Your task to perform on an android device: turn on location history Image 0: 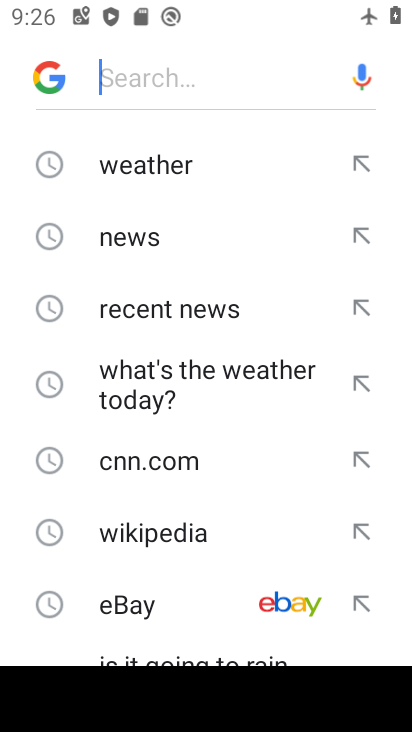
Step 0: press home button
Your task to perform on an android device: turn on location history Image 1: 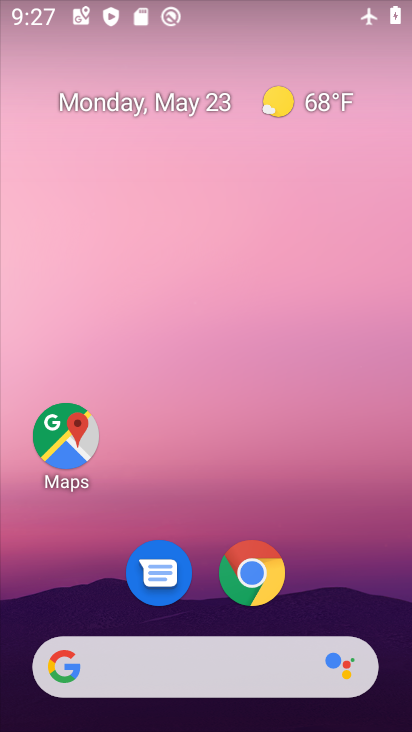
Step 1: drag from (197, 594) to (276, 190)
Your task to perform on an android device: turn on location history Image 2: 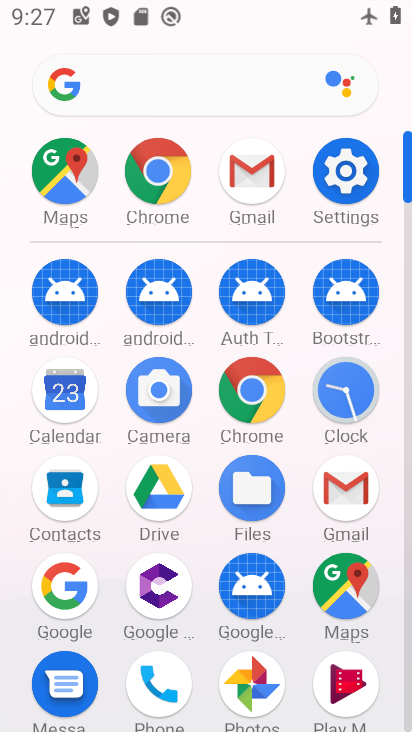
Step 2: click (350, 186)
Your task to perform on an android device: turn on location history Image 3: 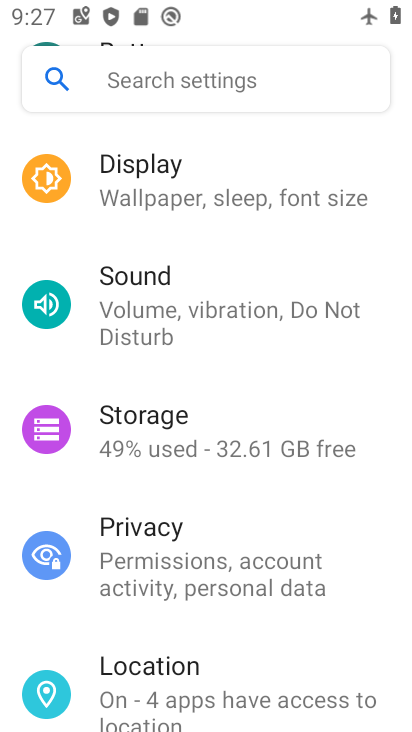
Step 3: click (222, 679)
Your task to perform on an android device: turn on location history Image 4: 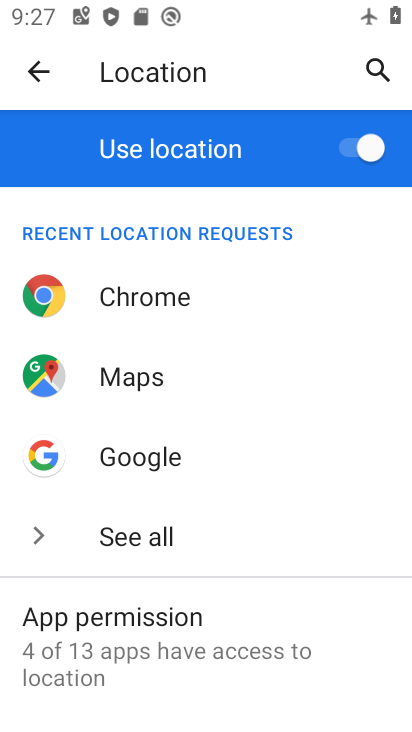
Step 4: drag from (302, 620) to (351, 105)
Your task to perform on an android device: turn on location history Image 5: 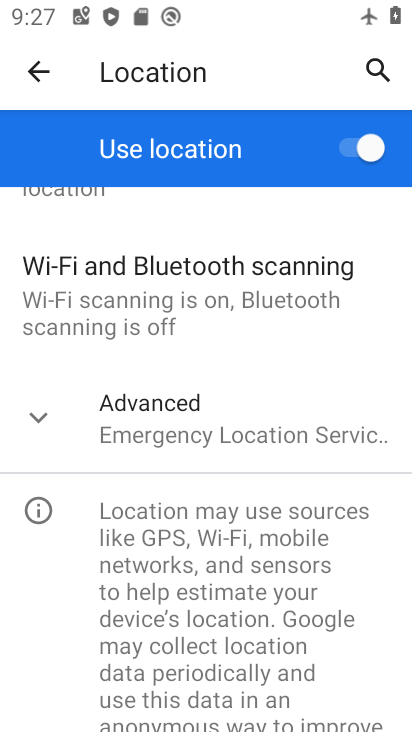
Step 5: click (228, 433)
Your task to perform on an android device: turn on location history Image 6: 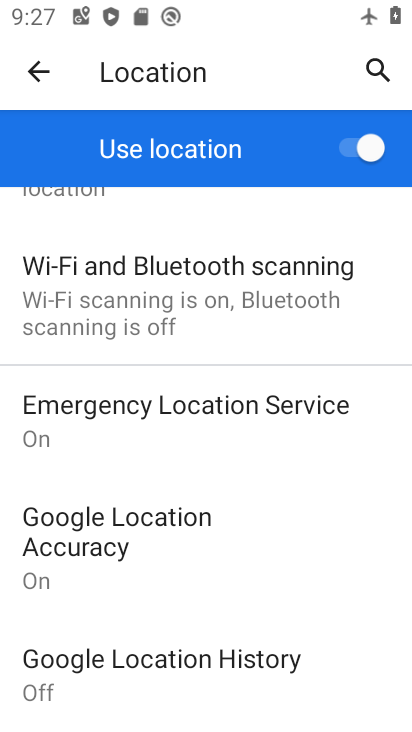
Step 6: click (279, 668)
Your task to perform on an android device: turn on location history Image 7: 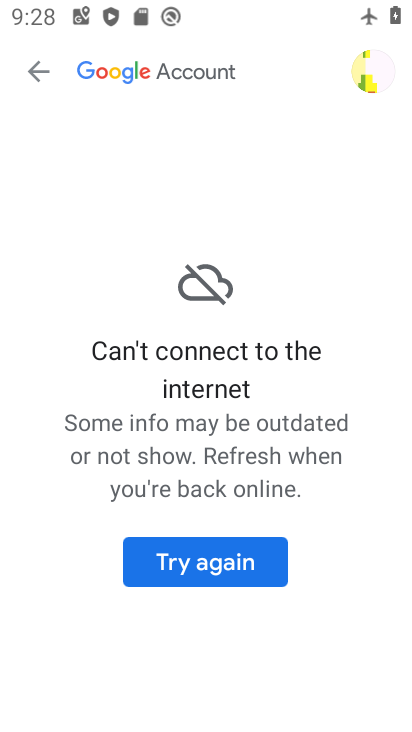
Step 7: task complete